Your task to perform on an android device: Find coffee shops on Maps Image 0: 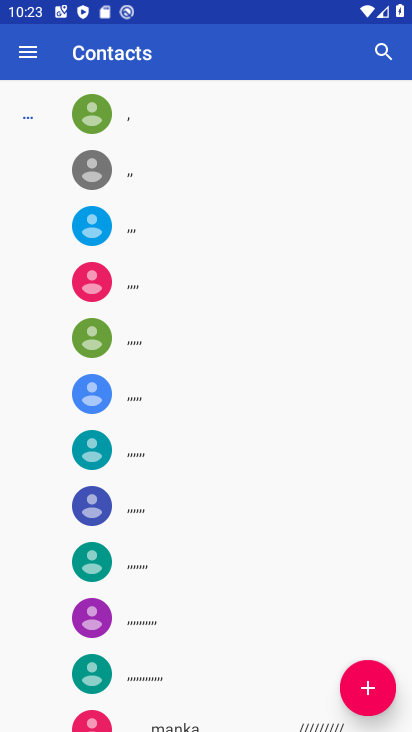
Step 0: press home button
Your task to perform on an android device: Find coffee shops on Maps Image 1: 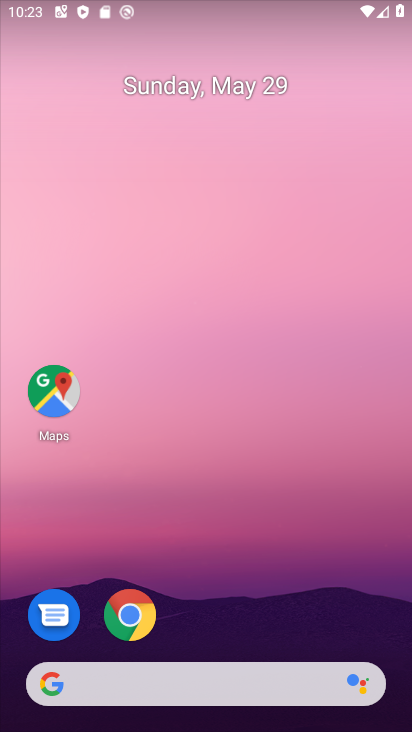
Step 1: click (55, 413)
Your task to perform on an android device: Find coffee shops on Maps Image 2: 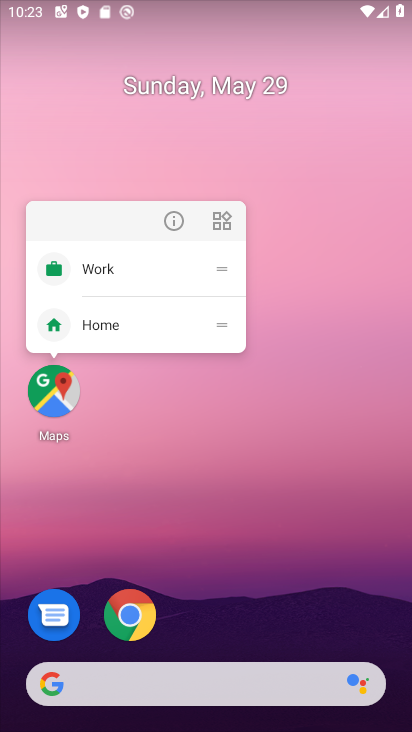
Step 2: click (56, 397)
Your task to perform on an android device: Find coffee shops on Maps Image 3: 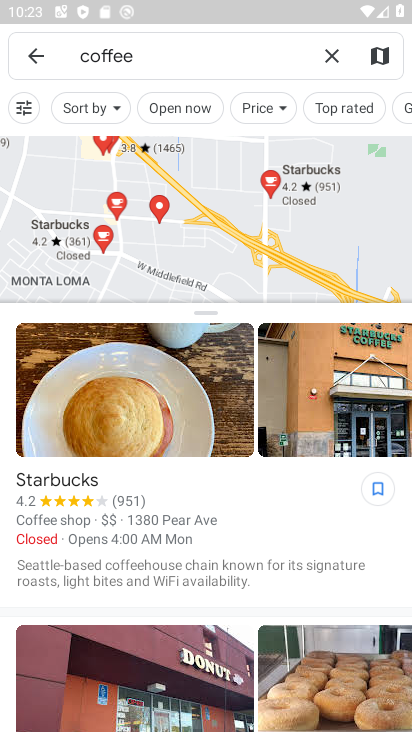
Step 3: task complete